Your task to perform on an android device: toggle location history Image 0: 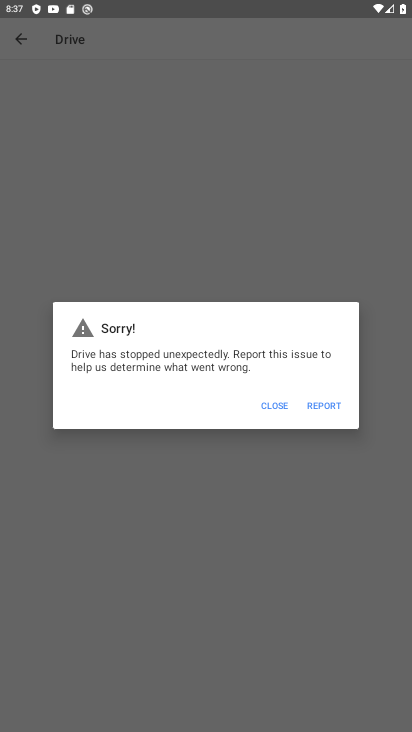
Step 0: press back button
Your task to perform on an android device: toggle location history Image 1: 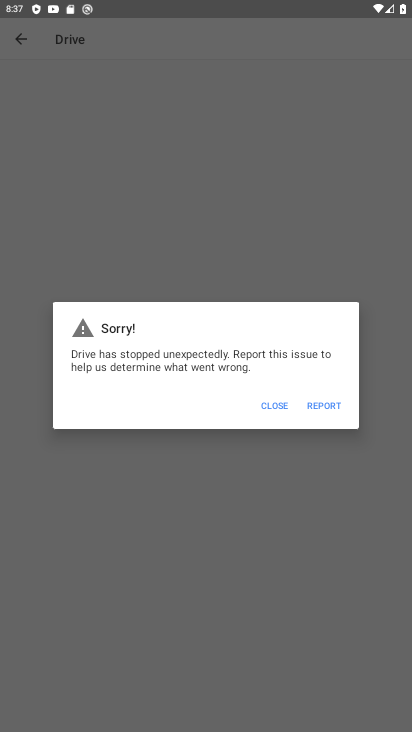
Step 1: press home button
Your task to perform on an android device: toggle location history Image 2: 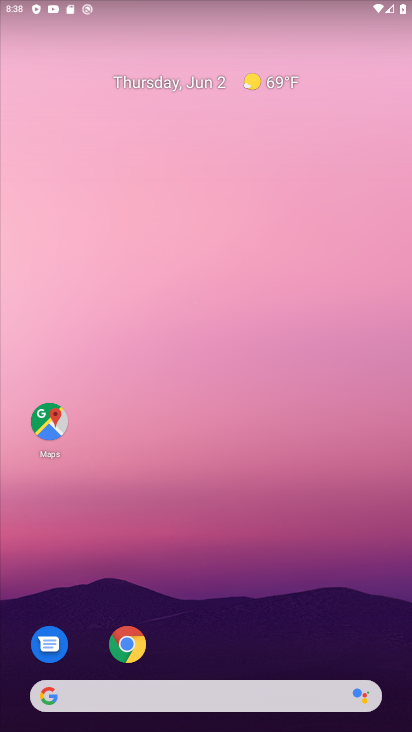
Step 2: drag from (258, 608) to (286, 19)
Your task to perform on an android device: toggle location history Image 3: 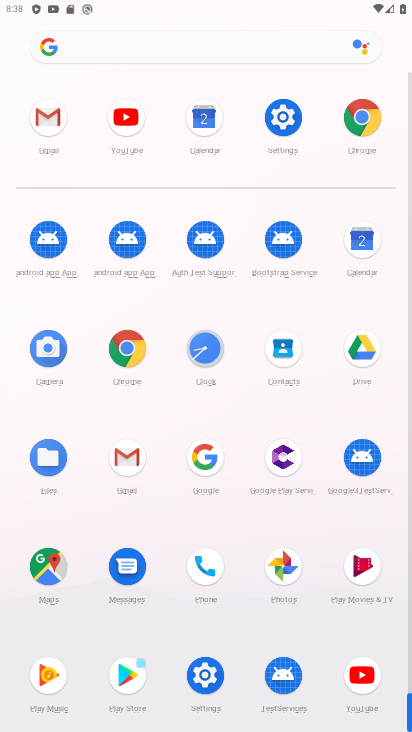
Step 3: click (206, 675)
Your task to perform on an android device: toggle location history Image 4: 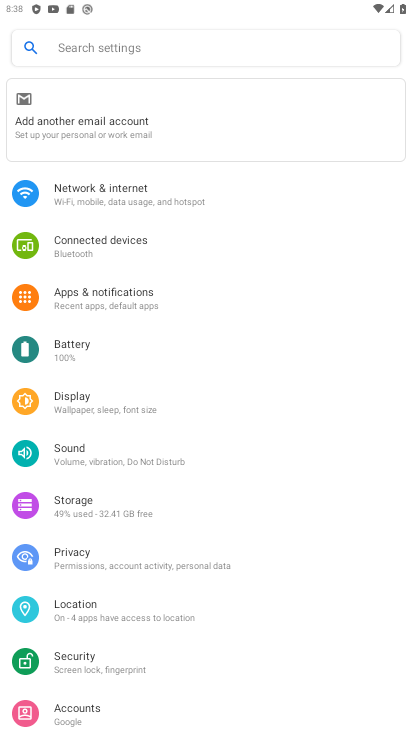
Step 4: click (135, 609)
Your task to perform on an android device: toggle location history Image 5: 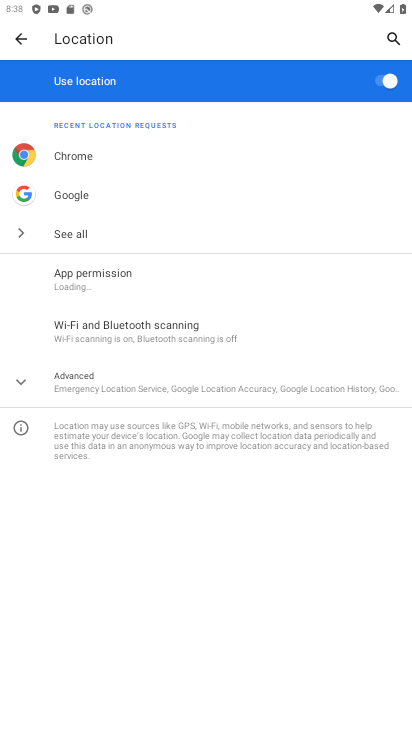
Step 5: click (35, 385)
Your task to perform on an android device: toggle location history Image 6: 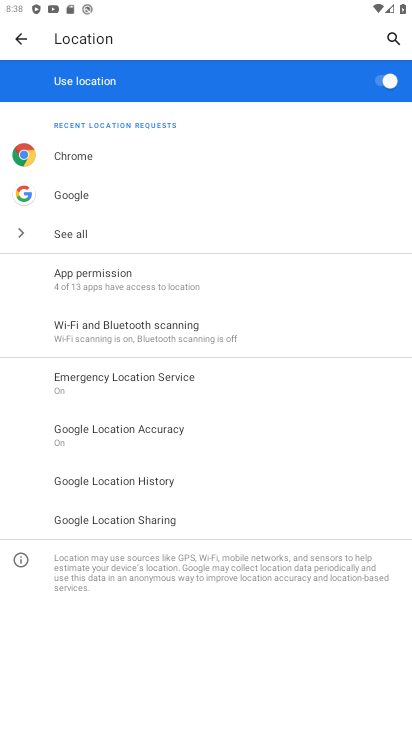
Step 6: click (155, 482)
Your task to perform on an android device: toggle location history Image 7: 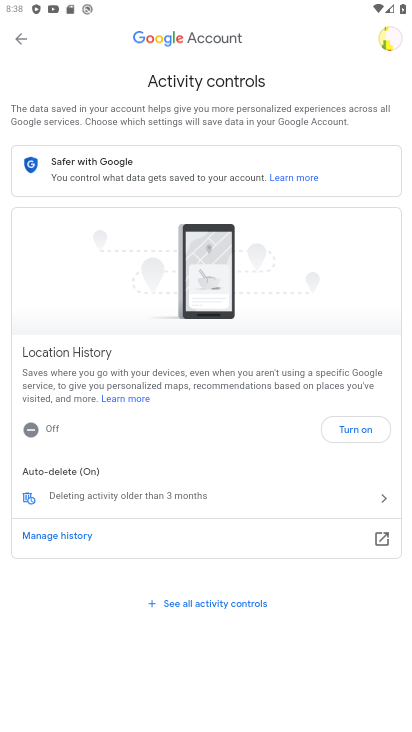
Step 7: click (351, 429)
Your task to perform on an android device: toggle location history Image 8: 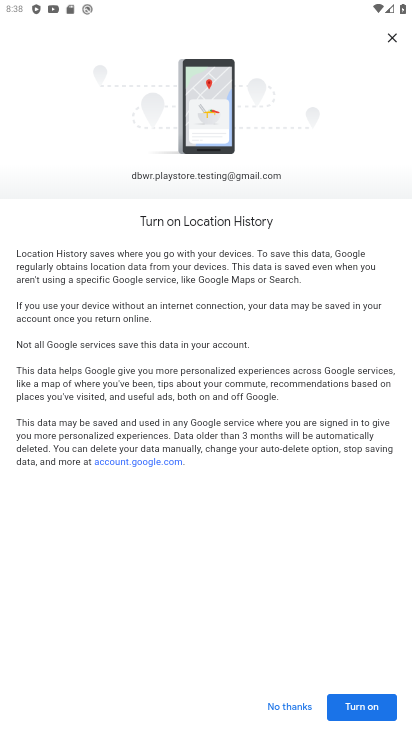
Step 8: click (362, 709)
Your task to perform on an android device: toggle location history Image 9: 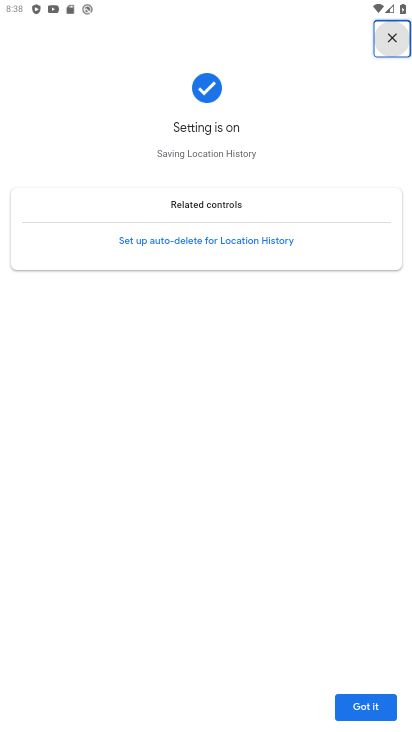
Step 9: task complete